Your task to perform on an android device: find photos in the google photos app Image 0: 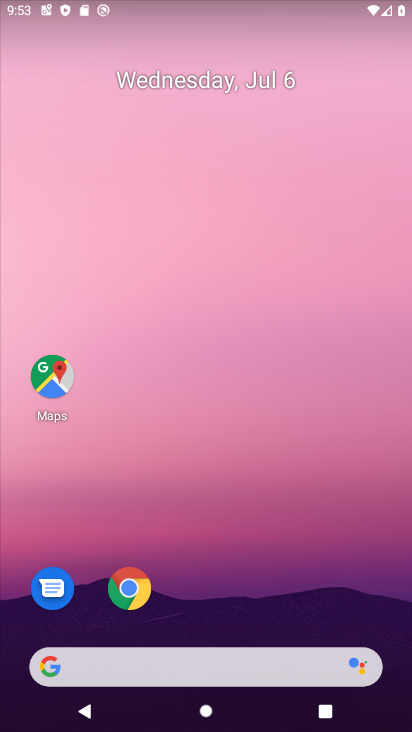
Step 0: drag from (231, 648) to (283, 124)
Your task to perform on an android device: find photos in the google photos app Image 1: 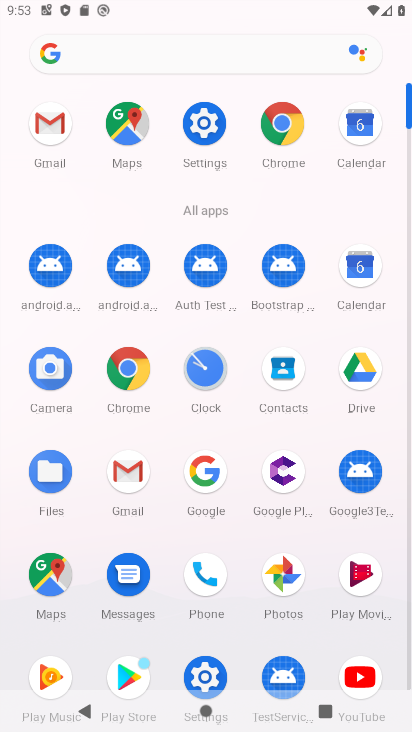
Step 1: click (283, 578)
Your task to perform on an android device: find photos in the google photos app Image 2: 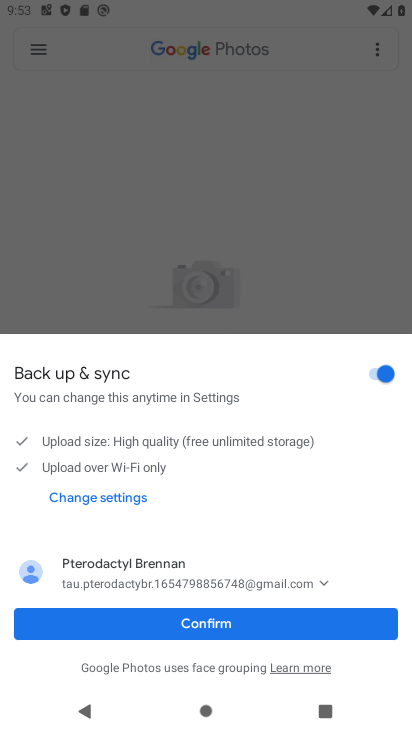
Step 2: click (232, 630)
Your task to perform on an android device: find photos in the google photos app Image 3: 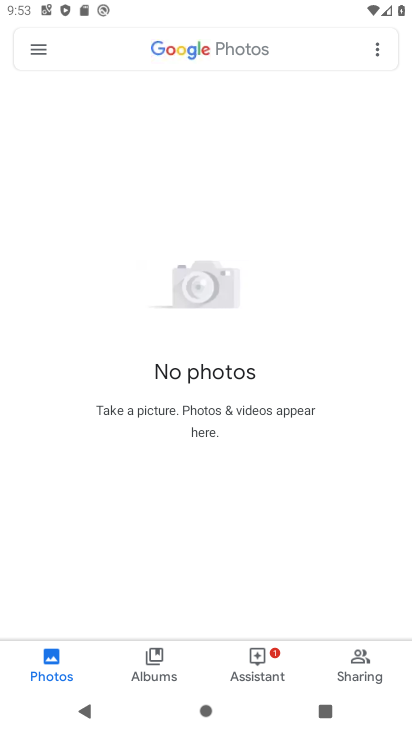
Step 3: click (50, 663)
Your task to perform on an android device: find photos in the google photos app Image 4: 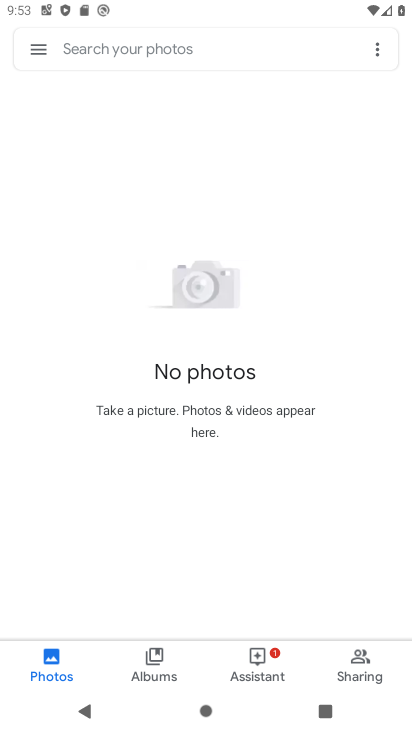
Step 4: task complete